Your task to perform on an android device: Go to Reddit.com Image 0: 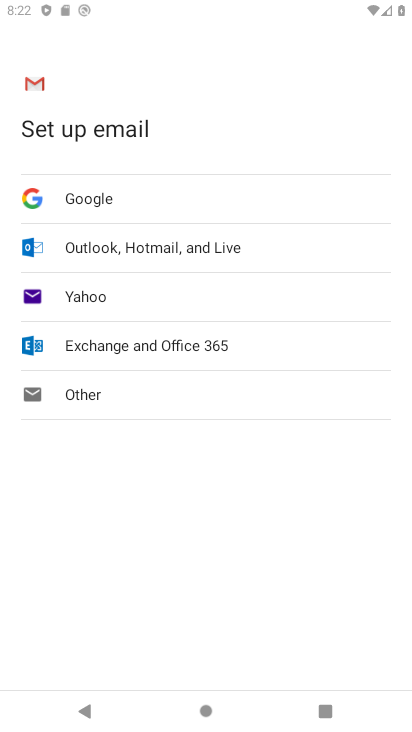
Step 0: press home button
Your task to perform on an android device: Go to Reddit.com Image 1: 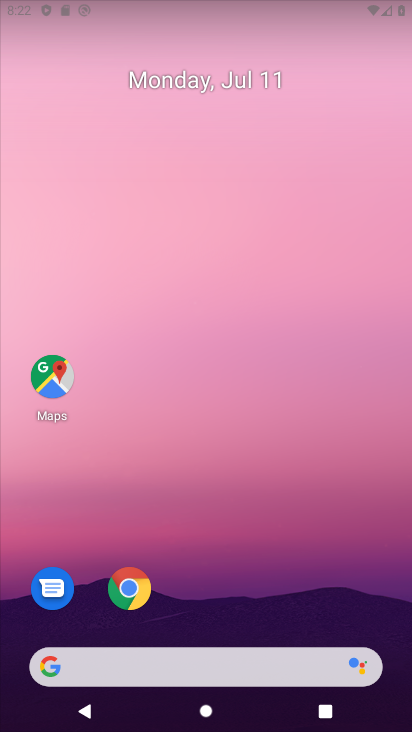
Step 1: click (100, 677)
Your task to perform on an android device: Go to Reddit.com Image 2: 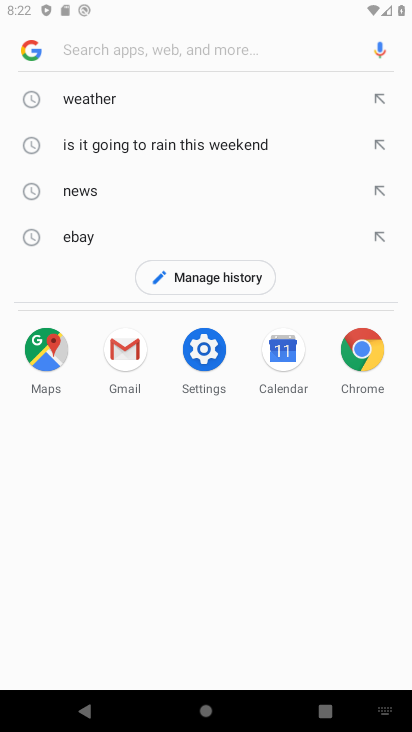
Step 2: type "reddit.com"
Your task to perform on an android device: Go to Reddit.com Image 3: 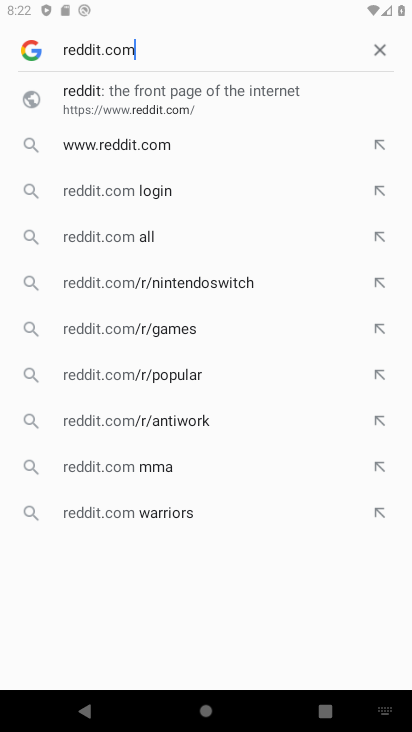
Step 3: click (117, 96)
Your task to perform on an android device: Go to Reddit.com Image 4: 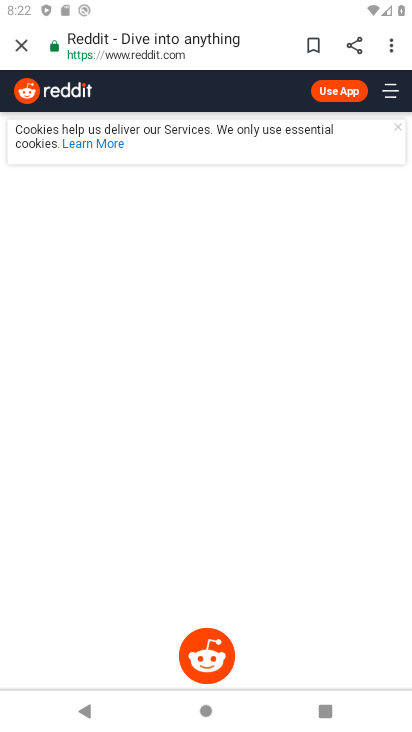
Step 4: task complete